Your task to perform on an android device: What's the weather today? Image 0: 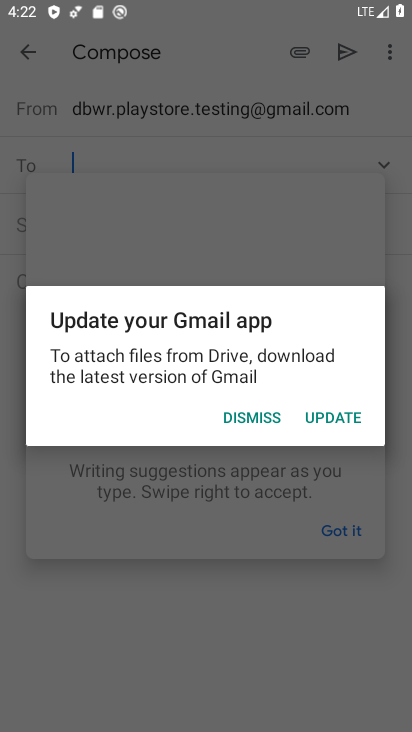
Step 0: press home button
Your task to perform on an android device: What's the weather today? Image 1: 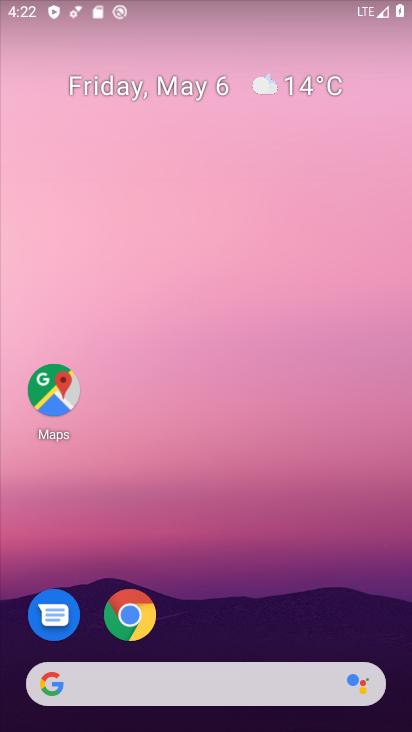
Step 1: click (202, 675)
Your task to perform on an android device: What's the weather today? Image 2: 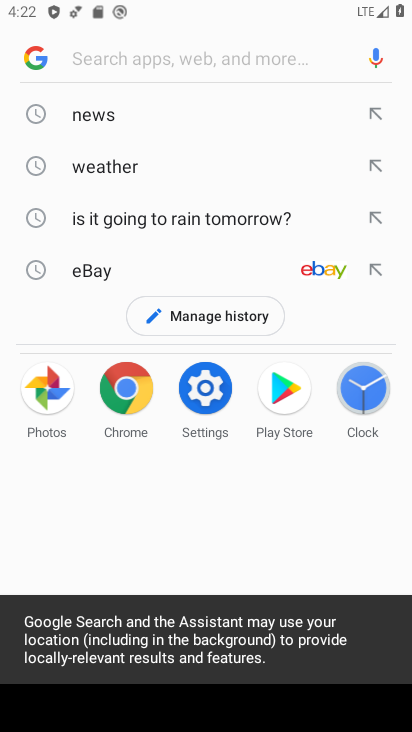
Step 2: click (194, 170)
Your task to perform on an android device: What's the weather today? Image 3: 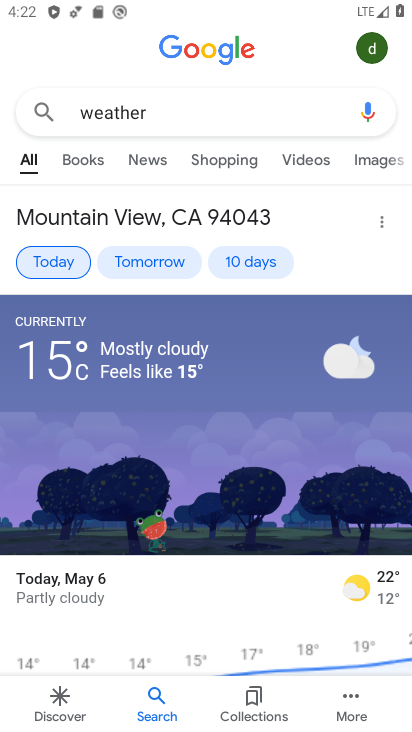
Step 3: task complete